Your task to perform on an android device: Open ESPN.com Image 0: 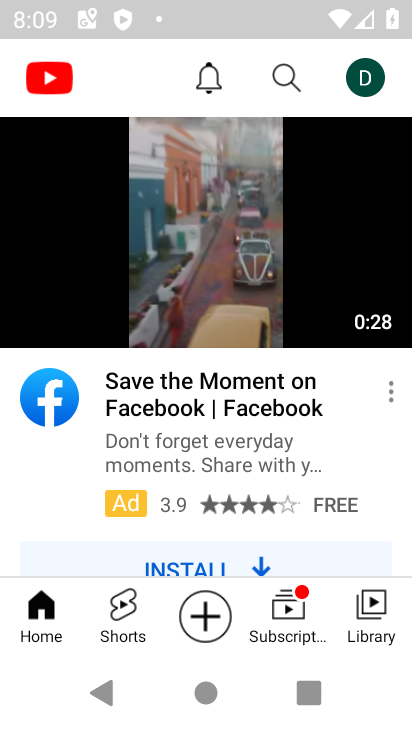
Step 0: press back button
Your task to perform on an android device: Open ESPN.com Image 1: 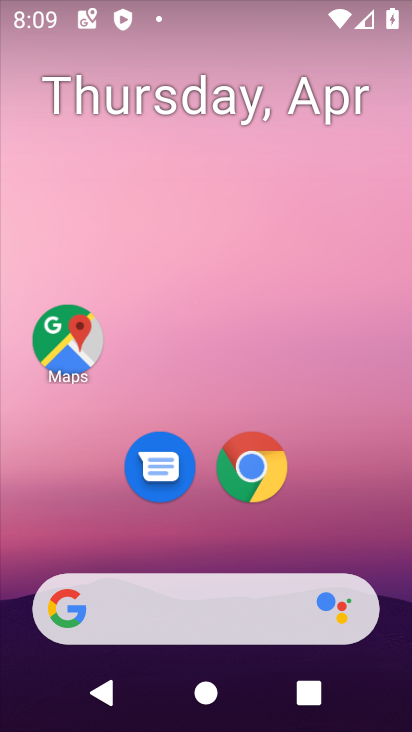
Step 1: click (263, 470)
Your task to perform on an android device: Open ESPN.com Image 2: 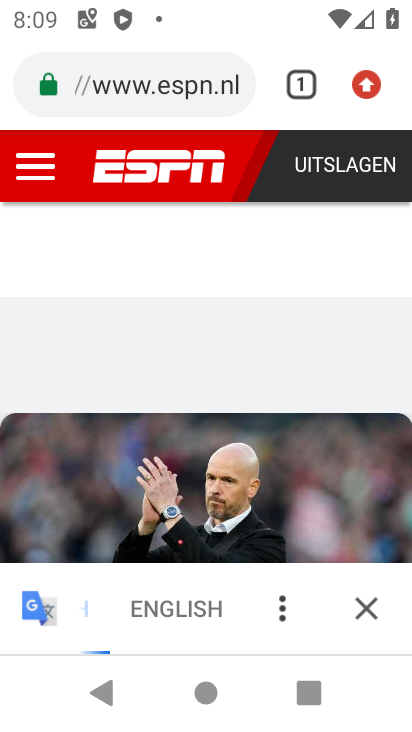
Step 2: task complete